Your task to perform on an android device: Search for pizza restaurants on Maps Image 0: 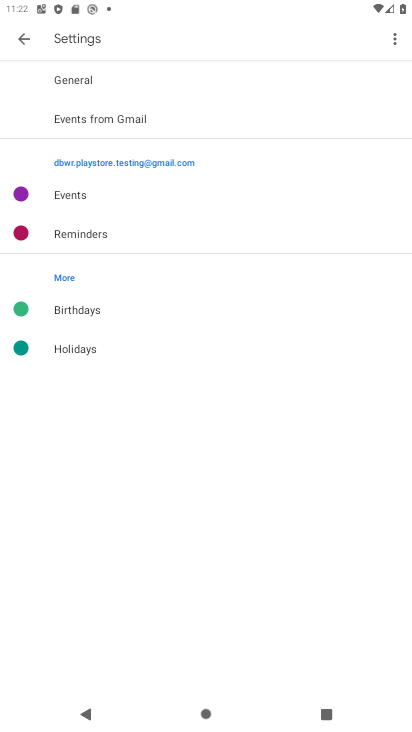
Step 0: press back button
Your task to perform on an android device: Search for pizza restaurants on Maps Image 1: 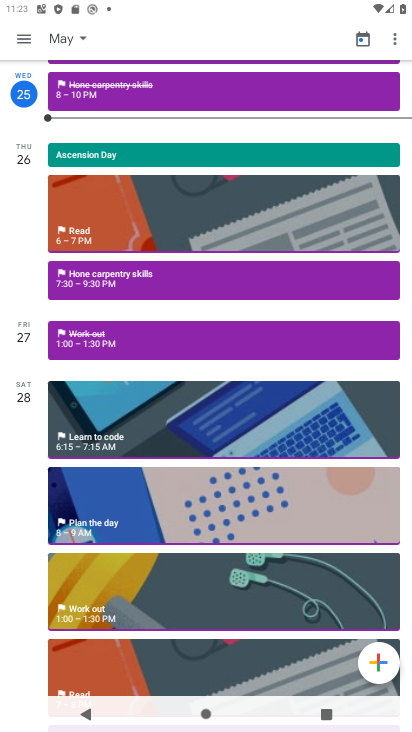
Step 1: press back button
Your task to perform on an android device: Search for pizza restaurants on Maps Image 2: 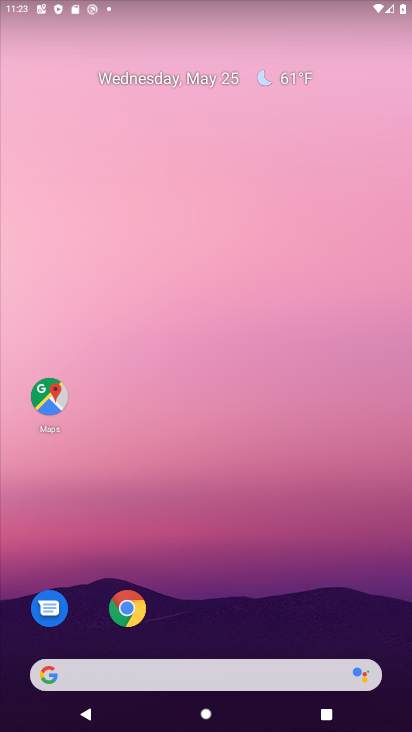
Step 2: click (45, 394)
Your task to perform on an android device: Search for pizza restaurants on Maps Image 3: 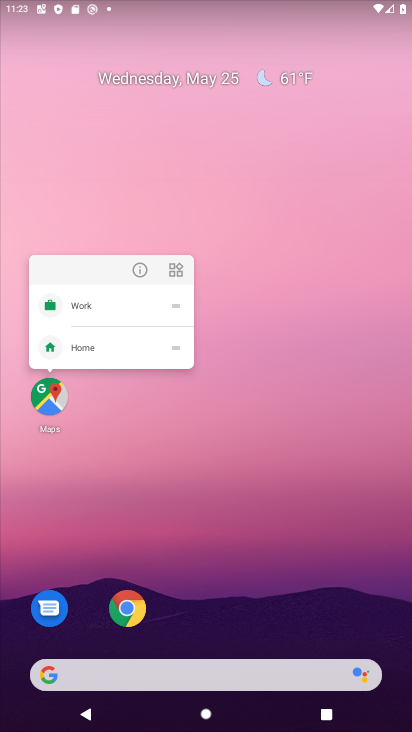
Step 3: click (47, 392)
Your task to perform on an android device: Search for pizza restaurants on Maps Image 4: 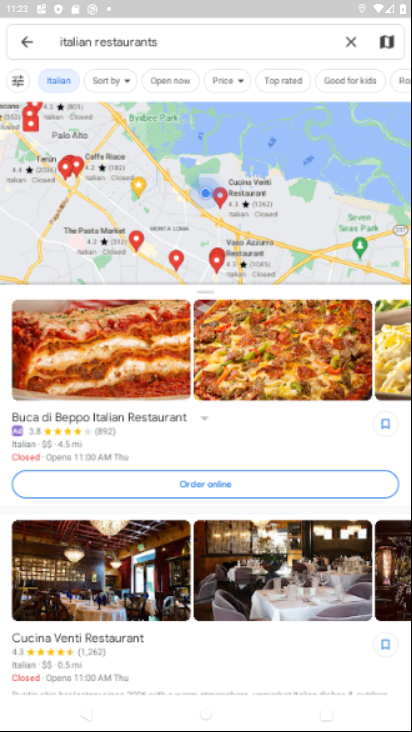
Step 4: click (349, 38)
Your task to perform on an android device: Search for pizza restaurants on Maps Image 5: 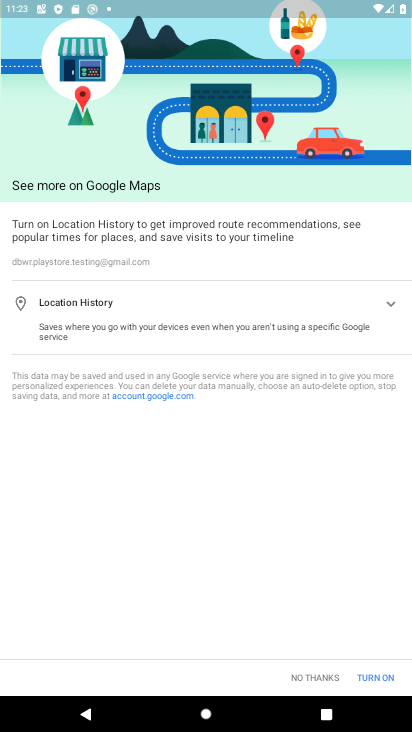
Step 5: click (305, 676)
Your task to perform on an android device: Search for pizza restaurants on Maps Image 6: 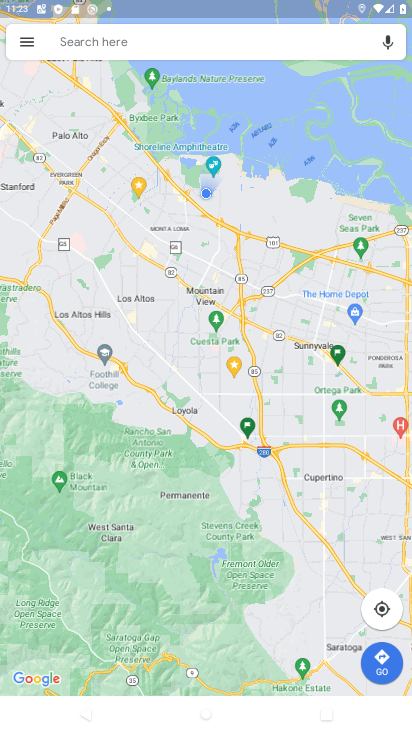
Step 6: click (149, 50)
Your task to perform on an android device: Search for pizza restaurants on Maps Image 7: 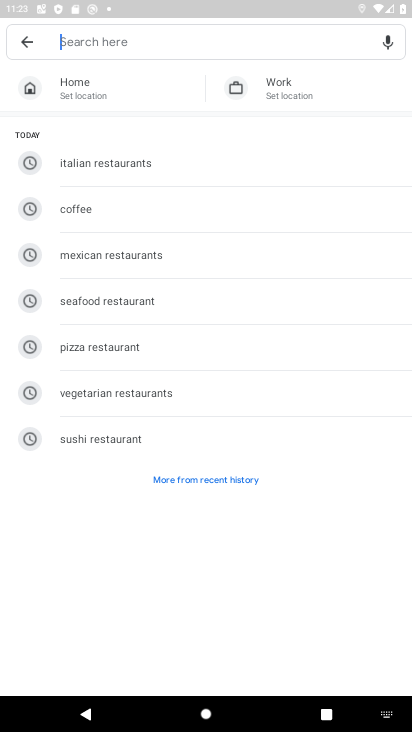
Step 7: click (101, 342)
Your task to perform on an android device: Search for pizza restaurants on Maps Image 8: 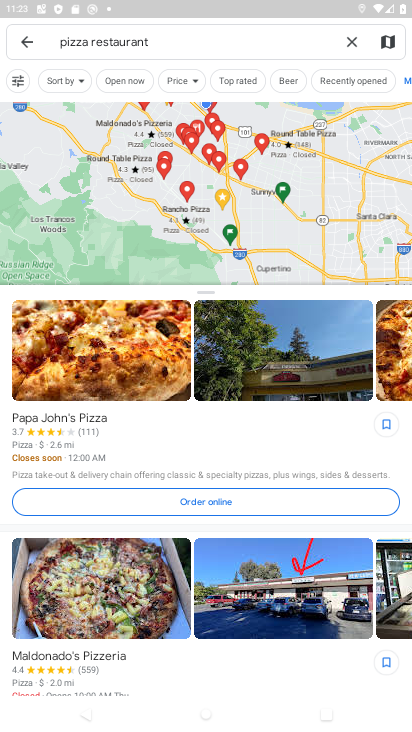
Step 8: task complete